Your task to perform on an android device: turn on airplane mode Image 0: 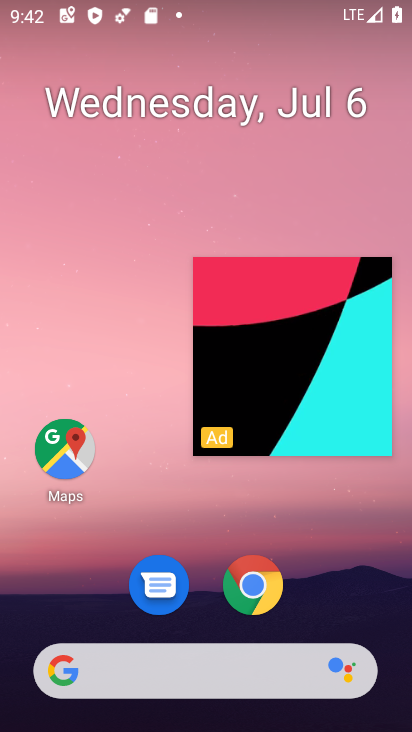
Step 0: click (329, 363)
Your task to perform on an android device: turn on airplane mode Image 1: 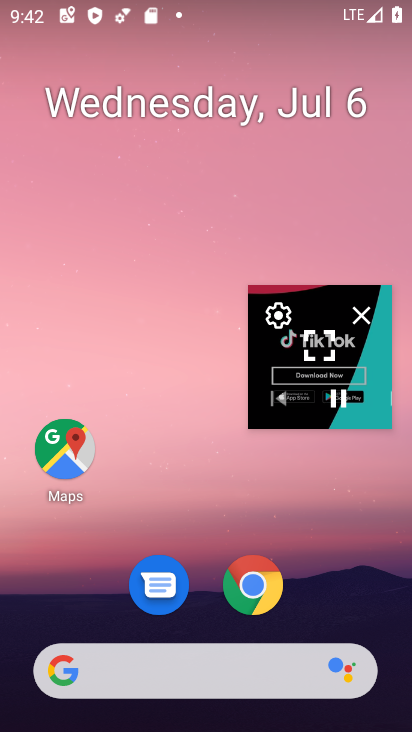
Step 1: click (365, 309)
Your task to perform on an android device: turn on airplane mode Image 2: 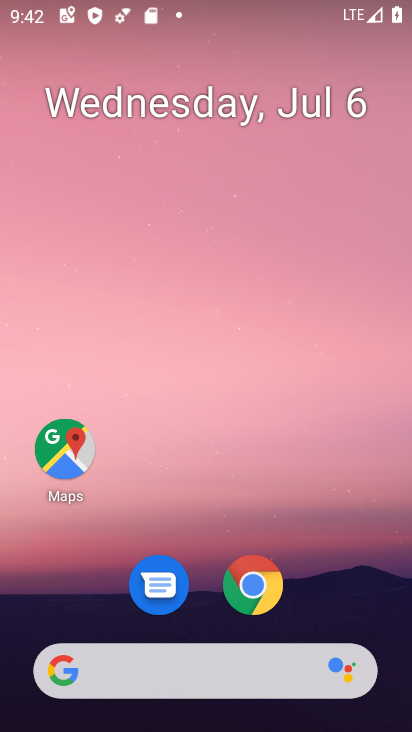
Step 2: drag from (234, 489) to (252, 20)
Your task to perform on an android device: turn on airplane mode Image 3: 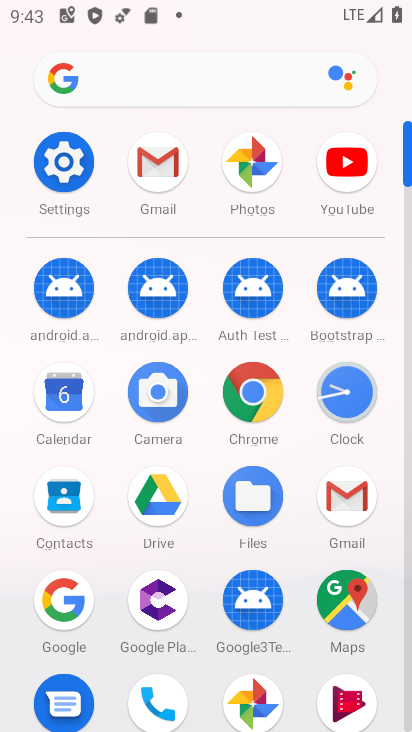
Step 3: click (75, 163)
Your task to perform on an android device: turn on airplane mode Image 4: 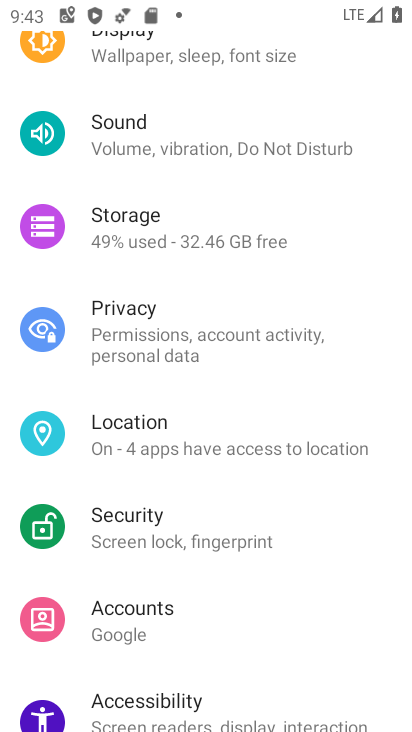
Step 4: drag from (216, 225) to (244, 594)
Your task to perform on an android device: turn on airplane mode Image 5: 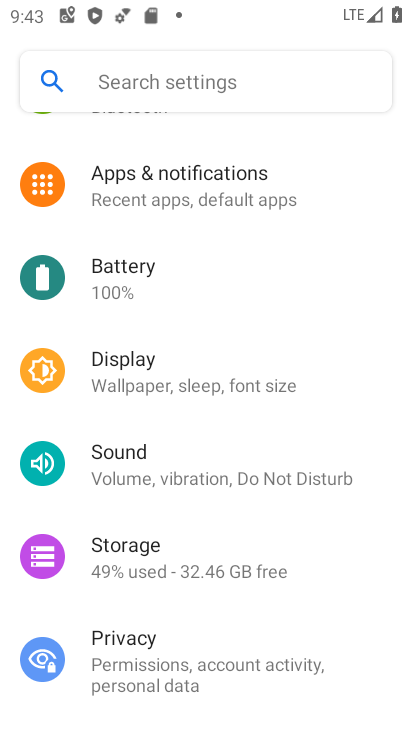
Step 5: drag from (222, 358) to (229, 648)
Your task to perform on an android device: turn on airplane mode Image 6: 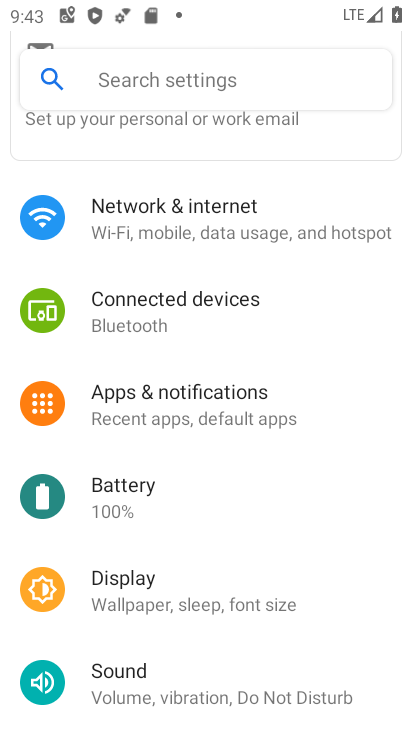
Step 6: click (236, 222)
Your task to perform on an android device: turn on airplane mode Image 7: 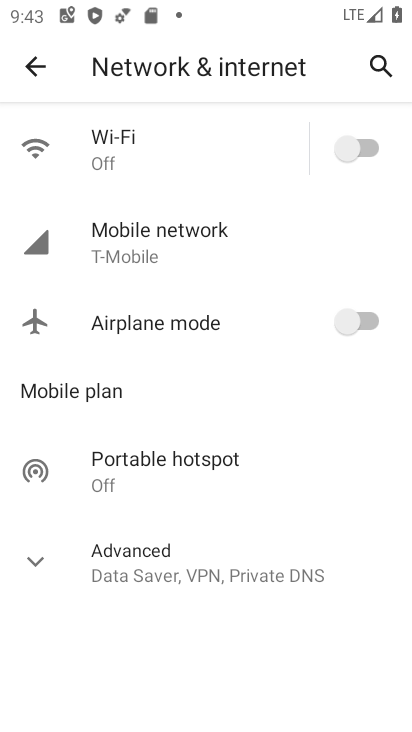
Step 7: click (358, 321)
Your task to perform on an android device: turn on airplane mode Image 8: 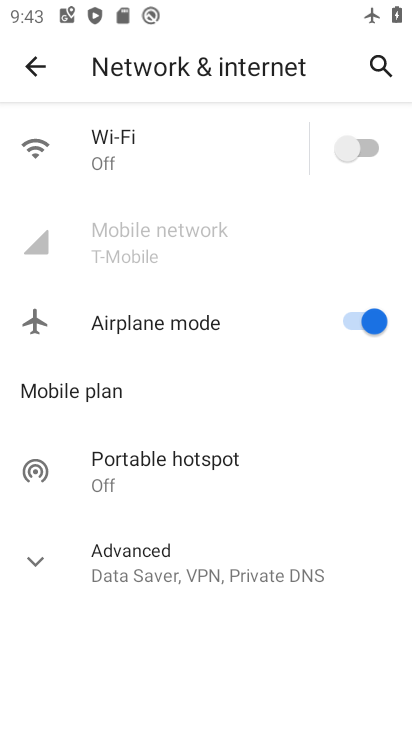
Step 8: task complete